Your task to perform on an android device: Open privacy settings Image 0: 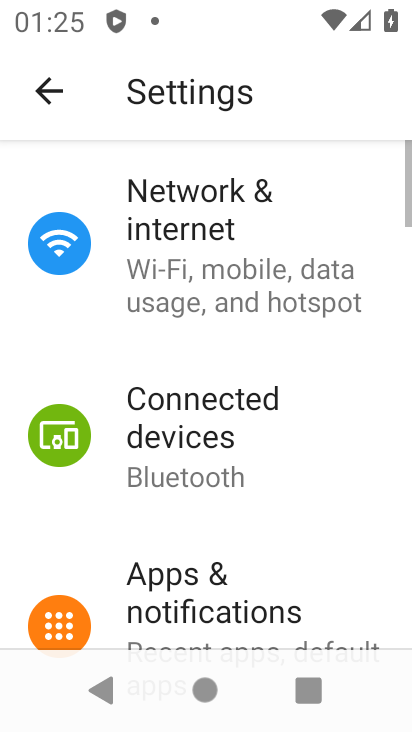
Step 0: press home button
Your task to perform on an android device: Open privacy settings Image 1: 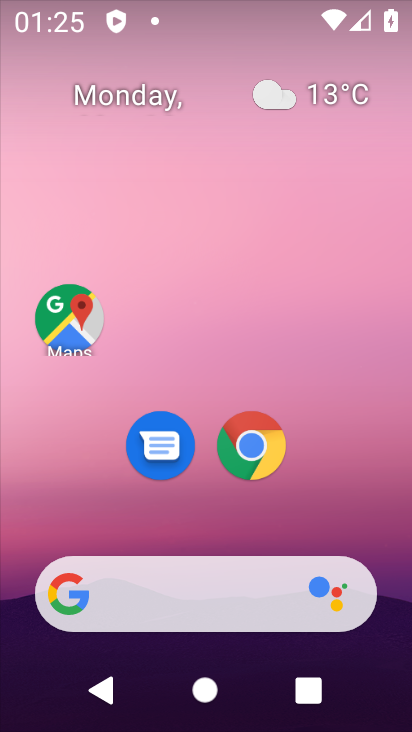
Step 1: drag from (244, 459) to (188, 7)
Your task to perform on an android device: Open privacy settings Image 2: 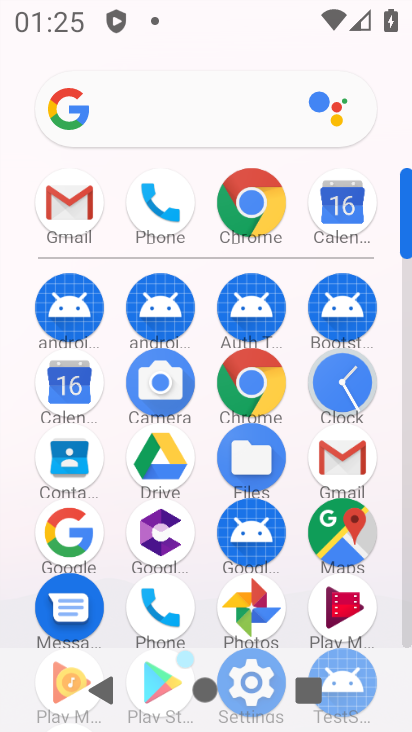
Step 2: drag from (278, 549) to (273, 131)
Your task to perform on an android device: Open privacy settings Image 3: 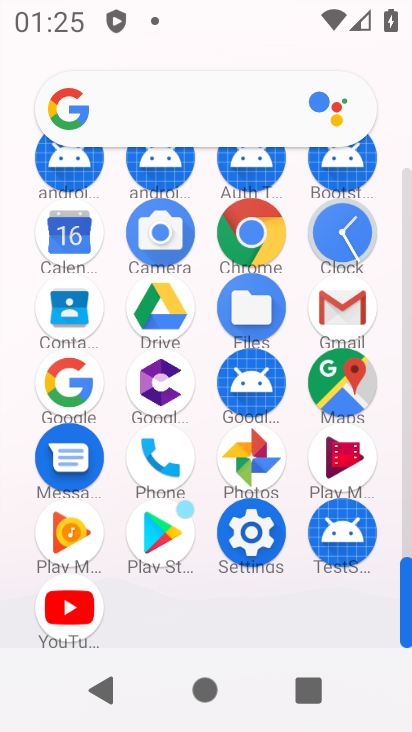
Step 3: click (258, 530)
Your task to perform on an android device: Open privacy settings Image 4: 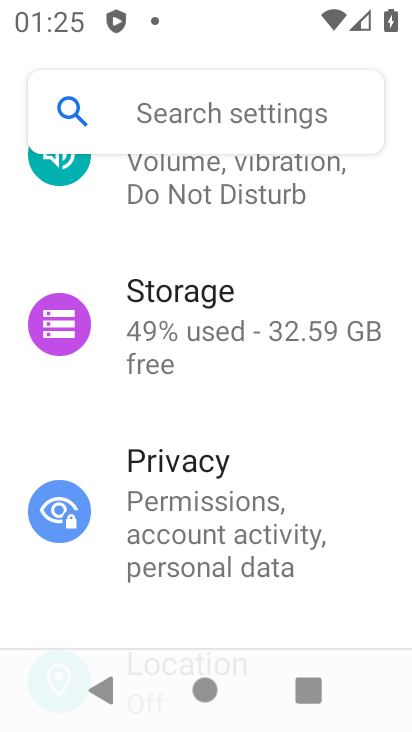
Step 4: click (174, 539)
Your task to perform on an android device: Open privacy settings Image 5: 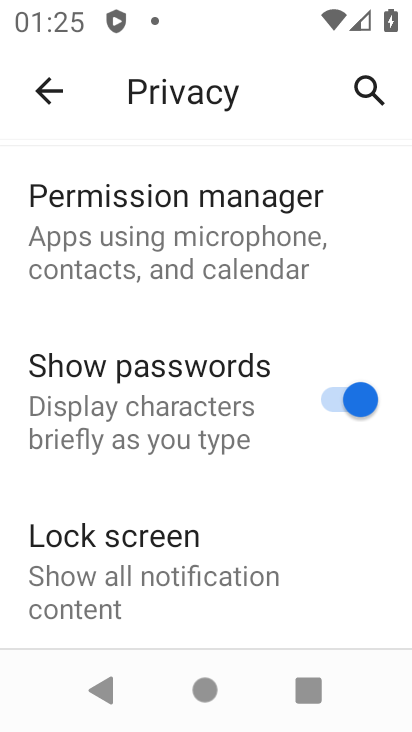
Step 5: task complete